Your task to perform on an android device: Open Yahoo.com Image 0: 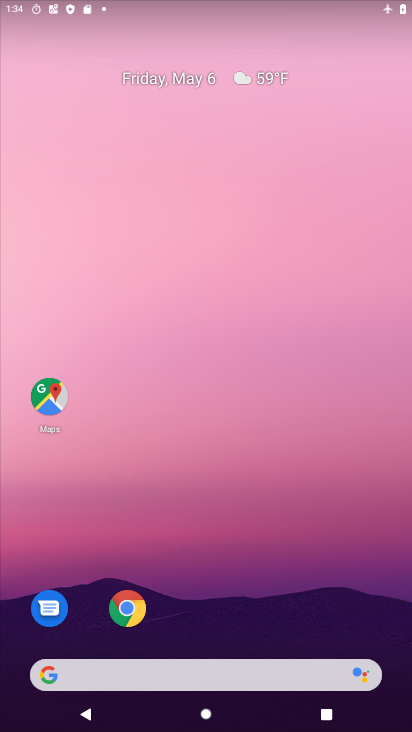
Step 0: click (121, 607)
Your task to perform on an android device: Open Yahoo.com Image 1: 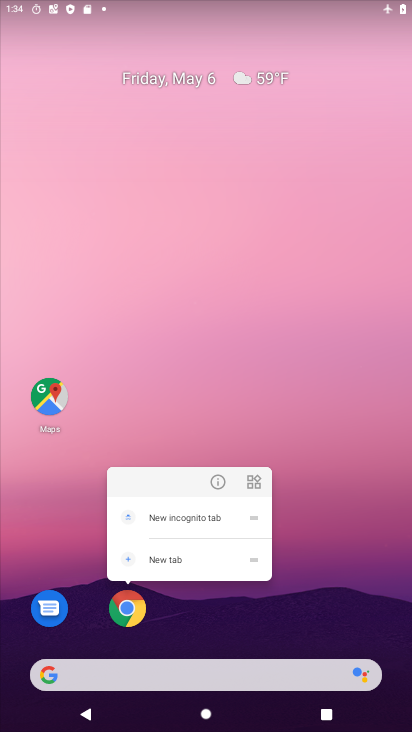
Step 1: click (222, 483)
Your task to perform on an android device: Open Yahoo.com Image 2: 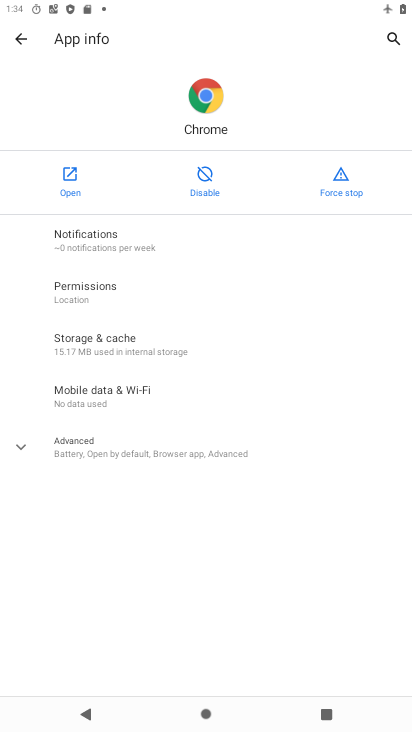
Step 2: click (70, 178)
Your task to perform on an android device: Open Yahoo.com Image 3: 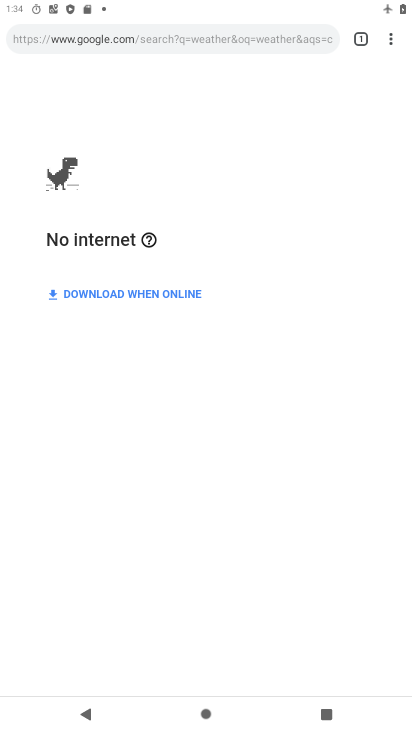
Step 3: task complete